Your task to perform on an android device: Open location settings Image 0: 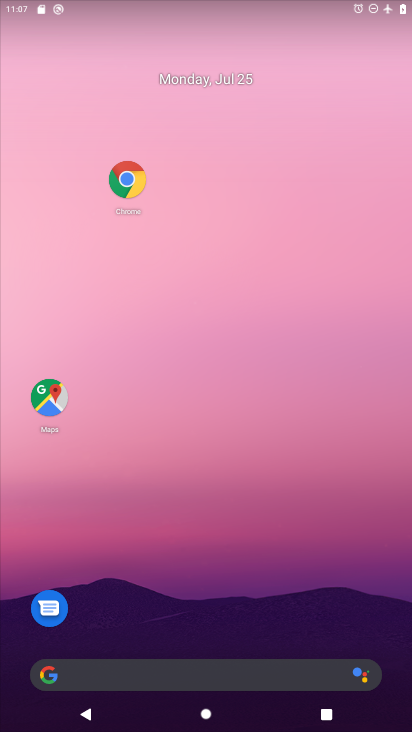
Step 0: drag from (163, 716) to (263, 91)
Your task to perform on an android device: Open location settings Image 1: 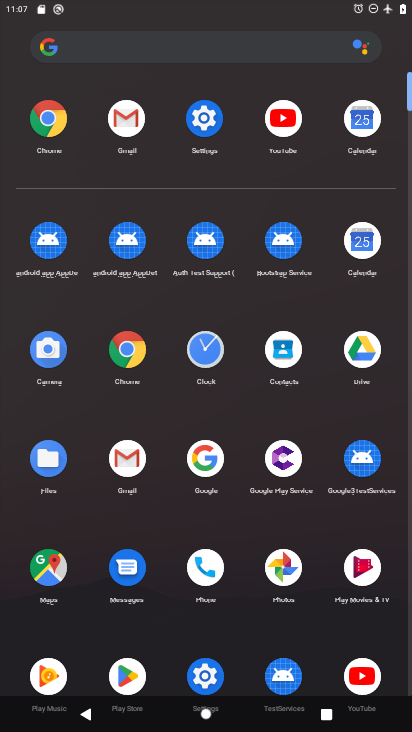
Step 1: click (206, 121)
Your task to perform on an android device: Open location settings Image 2: 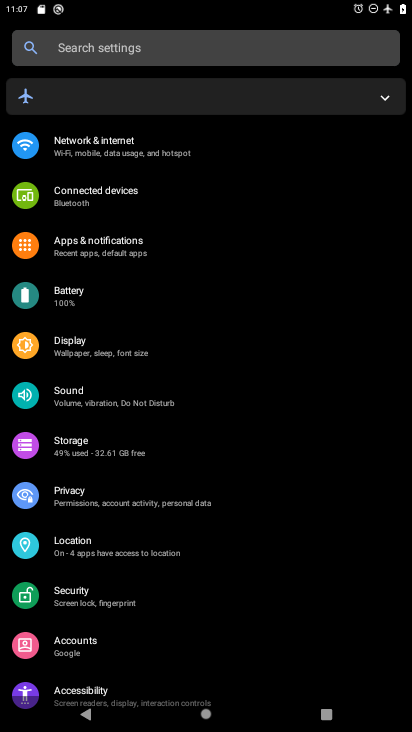
Step 2: click (107, 548)
Your task to perform on an android device: Open location settings Image 3: 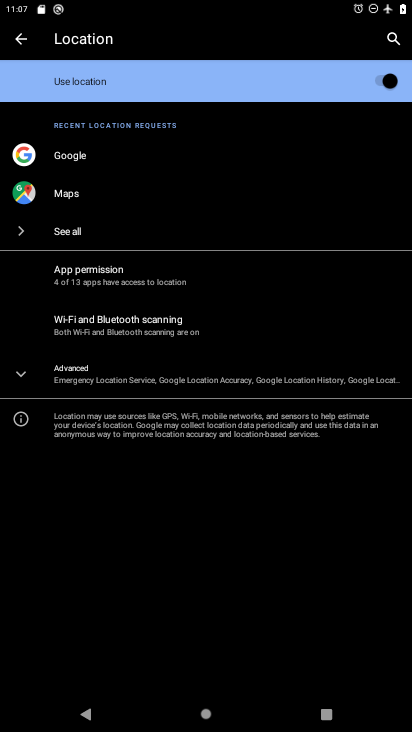
Step 3: task complete